Your task to perform on an android device: Go to eBay Image 0: 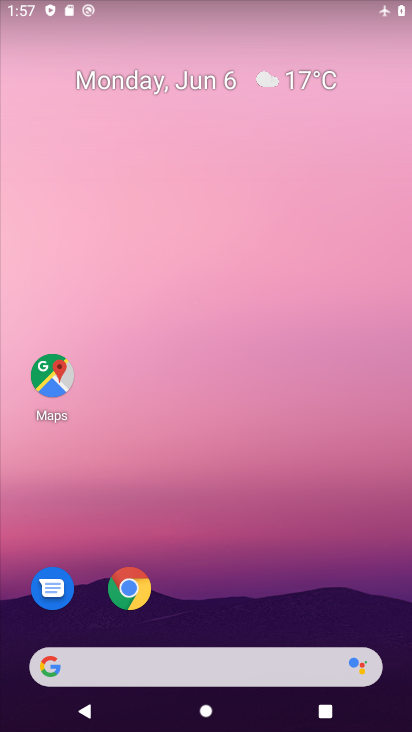
Step 0: click (137, 587)
Your task to perform on an android device: Go to eBay Image 1: 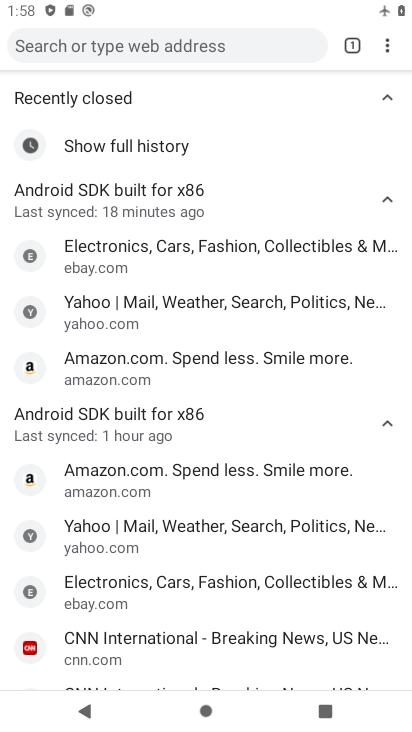
Step 1: click (190, 40)
Your task to perform on an android device: Go to eBay Image 2: 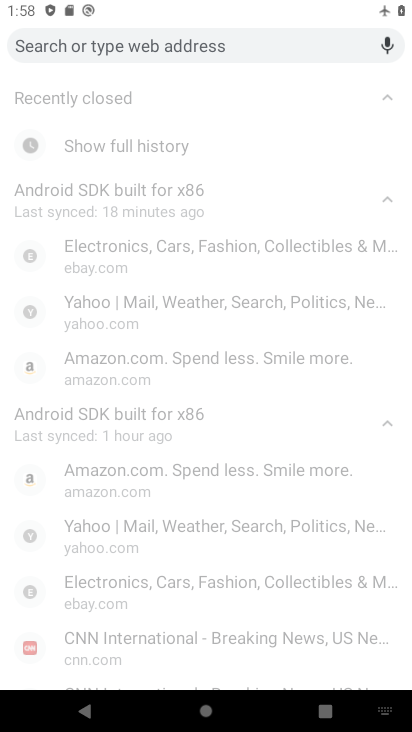
Step 2: type "ebay"
Your task to perform on an android device: Go to eBay Image 3: 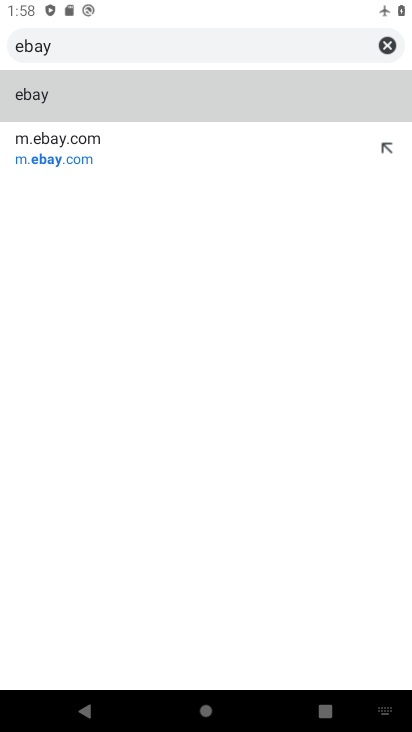
Step 3: click (289, 136)
Your task to perform on an android device: Go to eBay Image 4: 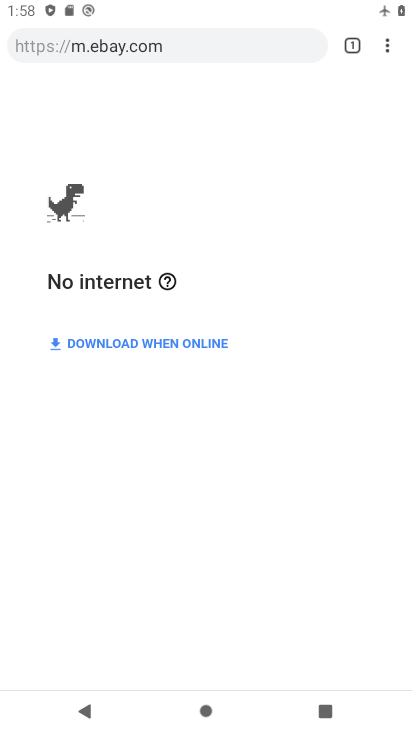
Step 4: task complete